Your task to perform on an android device: Open Chrome and go to settings Image 0: 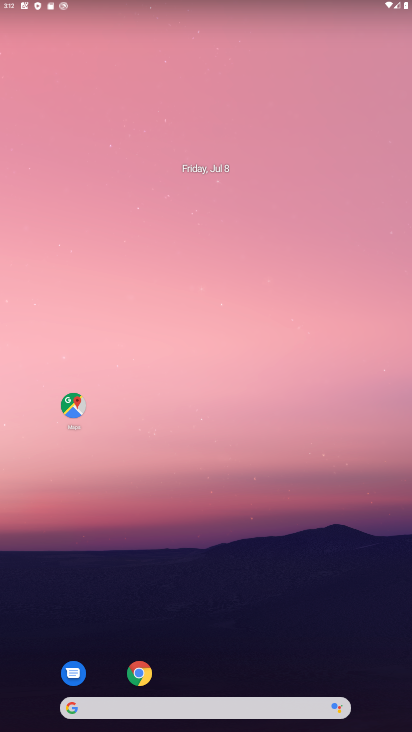
Step 0: click (143, 665)
Your task to perform on an android device: Open Chrome and go to settings Image 1: 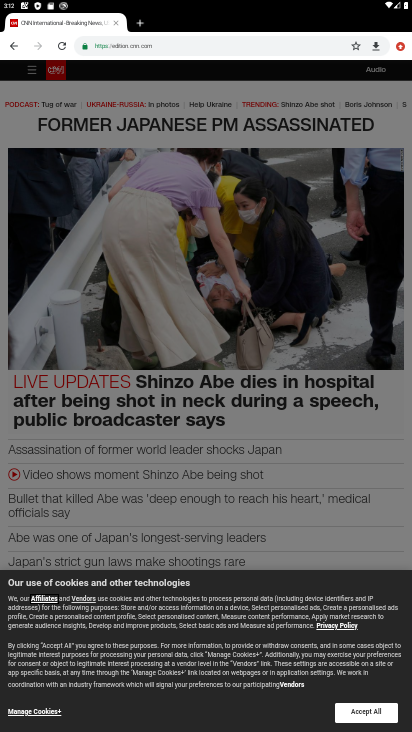
Step 1: click (402, 44)
Your task to perform on an android device: Open Chrome and go to settings Image 2: 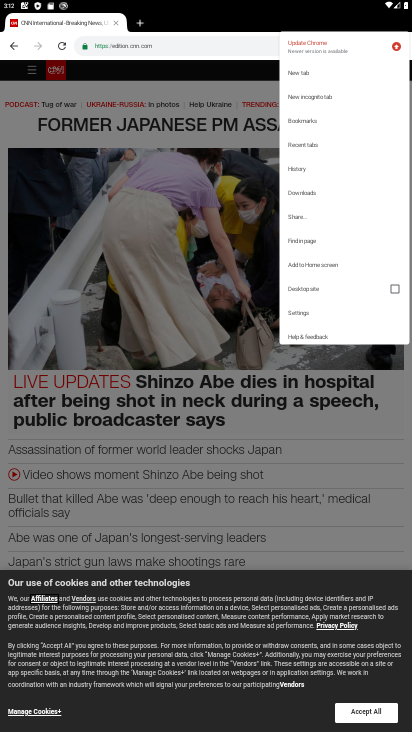
Step 2: click (296, 310)
Your task to perform on an android device: Open Chrome and go to settings Image 3: 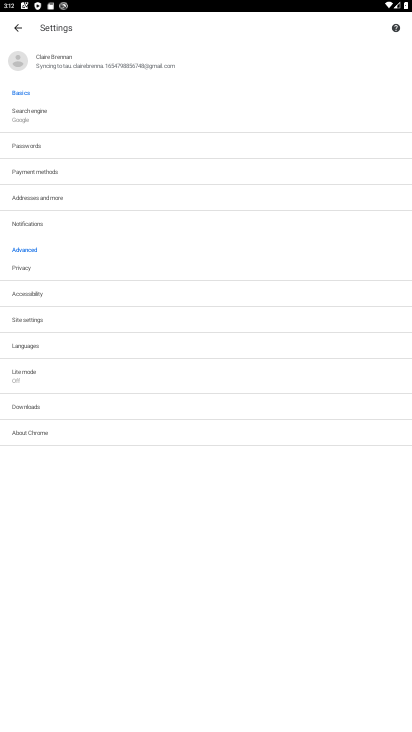
Step 3: task complete